Your task to perform on an android device: Open the stopwatch Image 0: 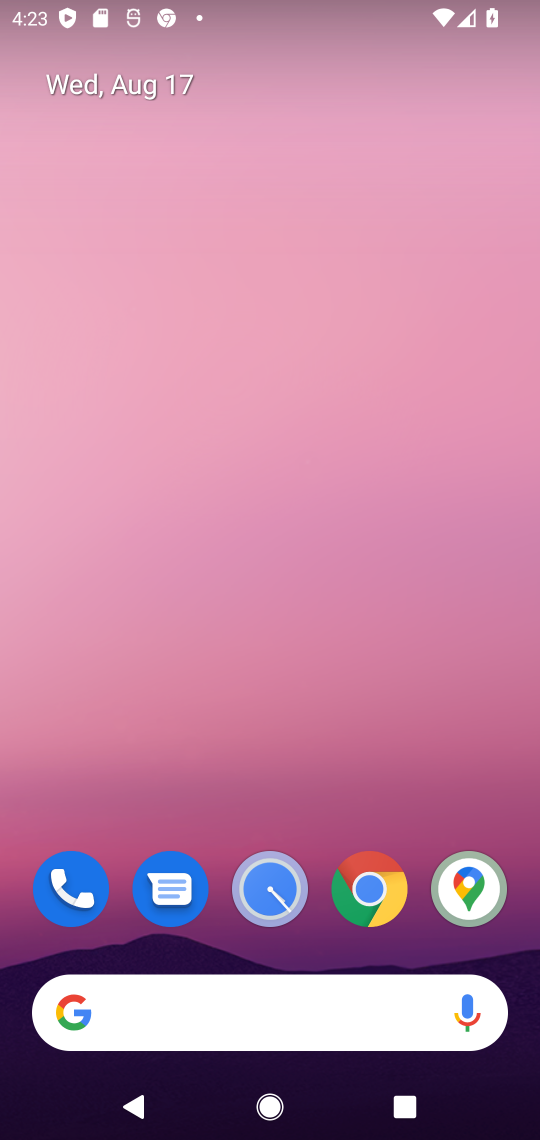
Step 0: drag from (285, 807) to (267, 55)
Your task to perform on an android device: Open the stopwatch Image 1: 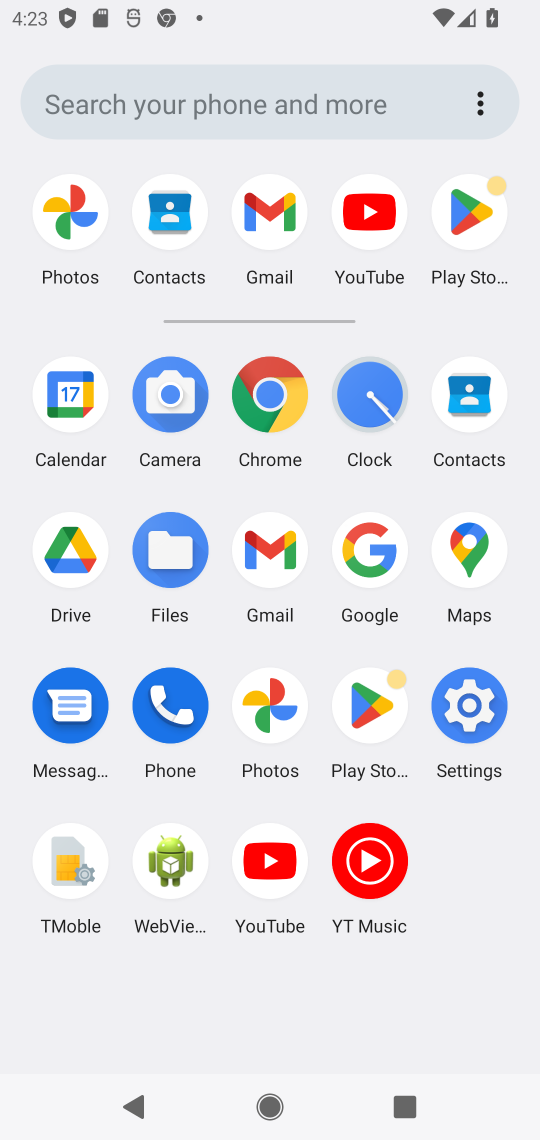
Step 1: click (356, 402)
Your task to perform on an android device: Open the stopwatch Image 2: 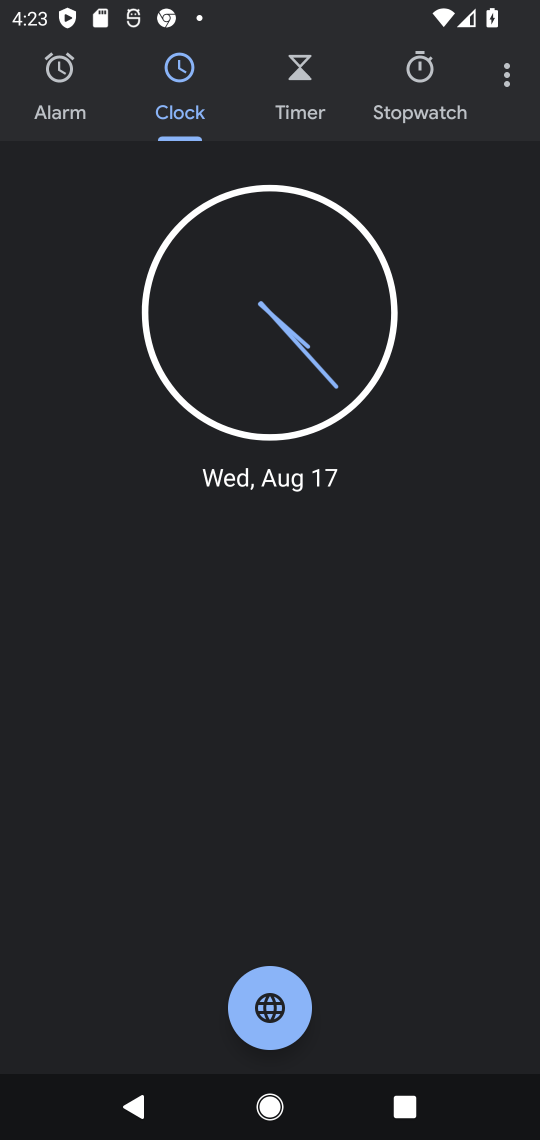
Step 2: click (423, 65)
Your task to perform on an android device: Open the stopwatch Image 3: 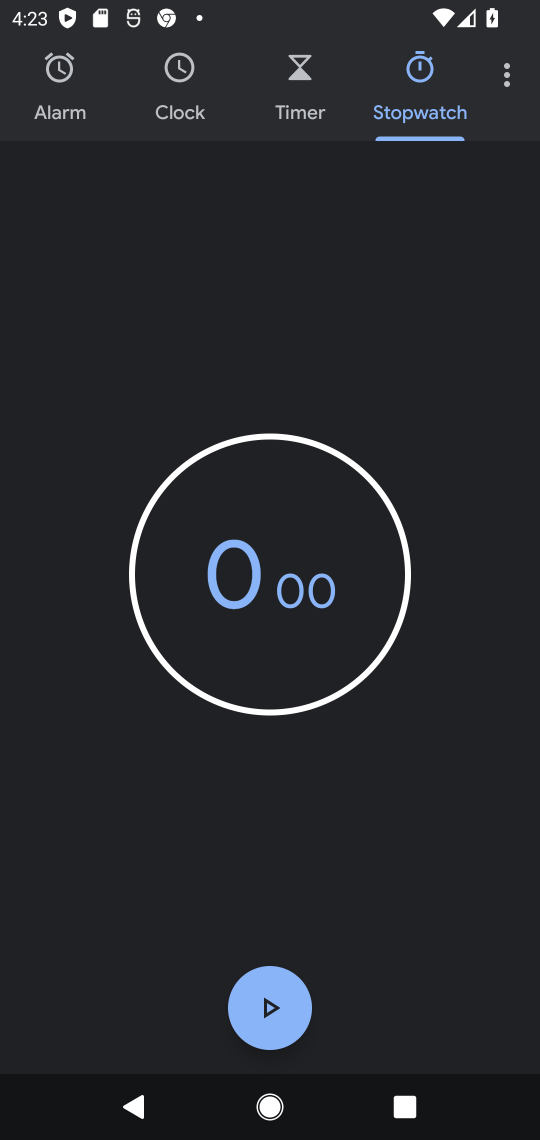
Step 3: task complete